Your task to perform on an android device: open app "Skype" Image 0: 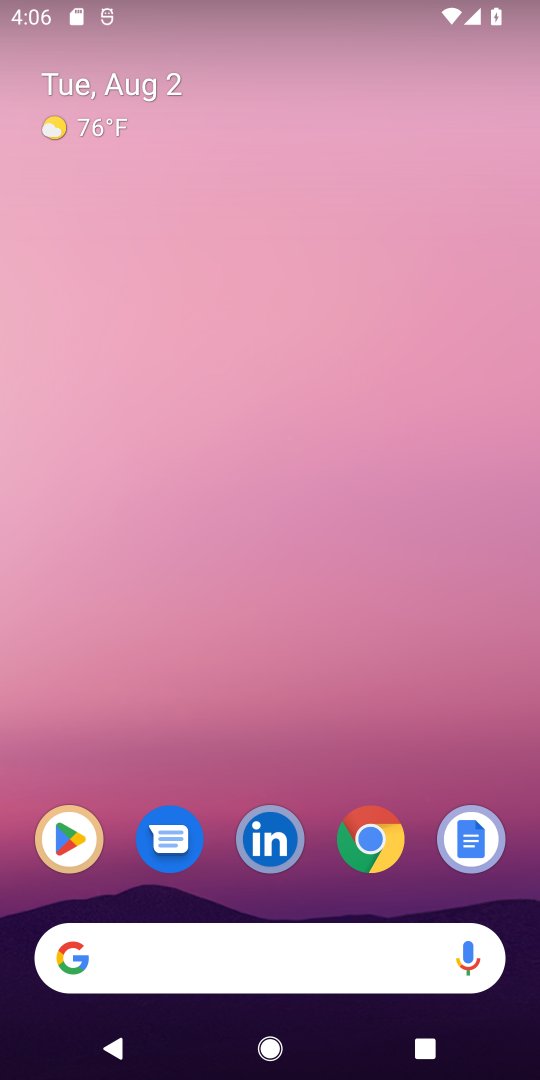
Step 0: drag from (222, 904) to (181, 81)
Your task to perform on an android device: open app "Skype" Image 1: 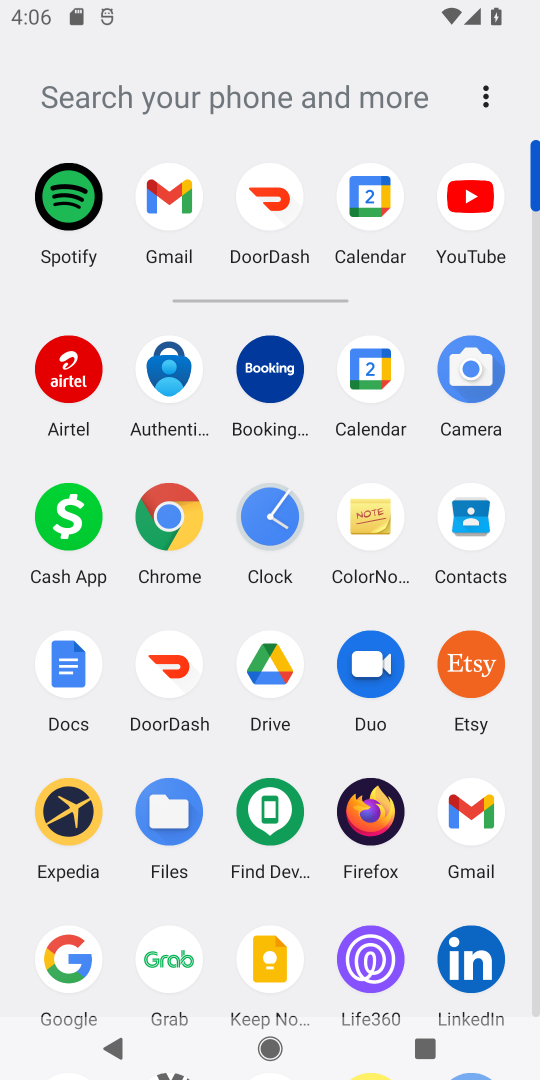
Step 1: click (218, 92)
Your task to perform on an android device: open app "Skype" Image 2: 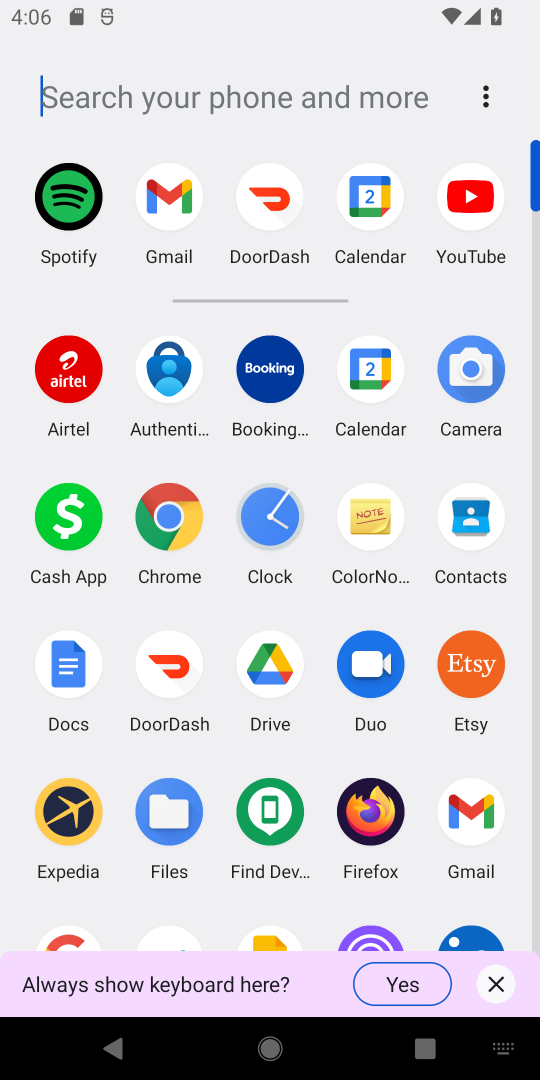
Step 2: type "skype"
Your task to perform on an android device: open app "Skype" Image 3: 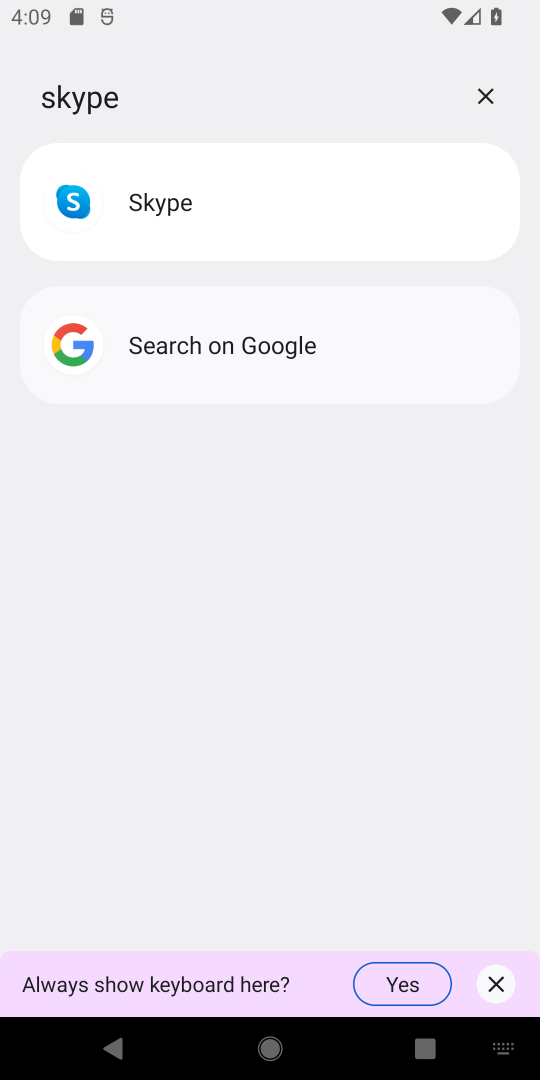
Step 3: click (194, 209)
Your task to perform on an android device: open app "Skype" Image 4: 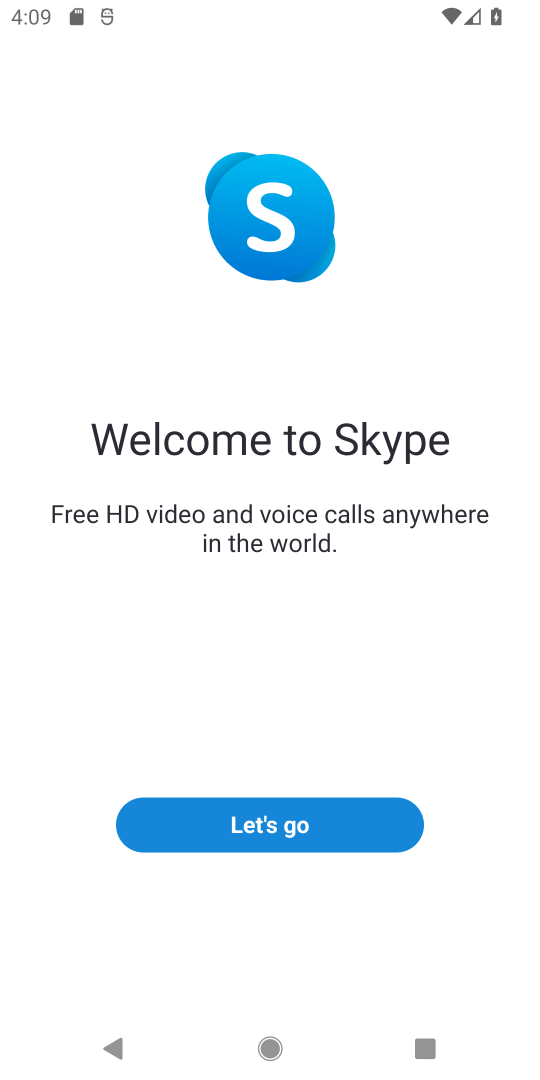
Step 4: task complete